Your task to perform on an android device: Go to location settings Image 0: 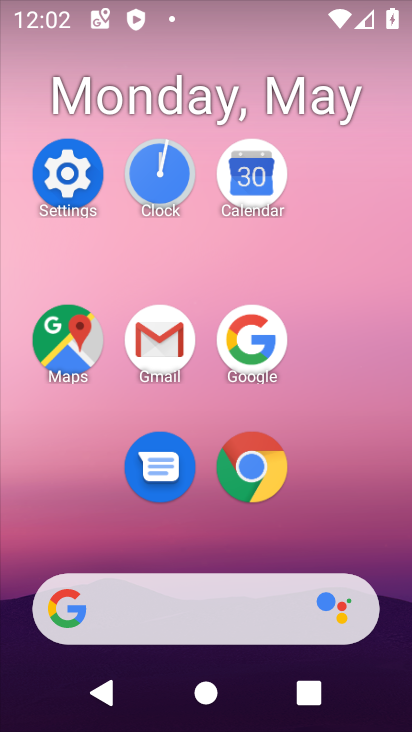
Step 0: click (57, 170)
Your task to perform on an android device: Go to location settings Image 1: 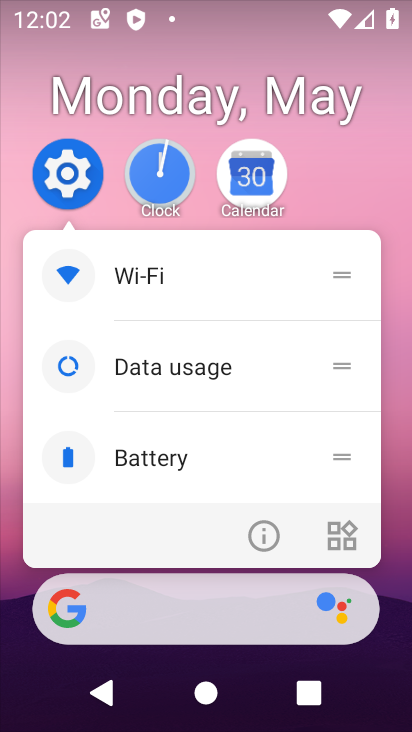
Step 1: click (57, 170)
Your task to perform on an android device: Go to location settings Image 2: 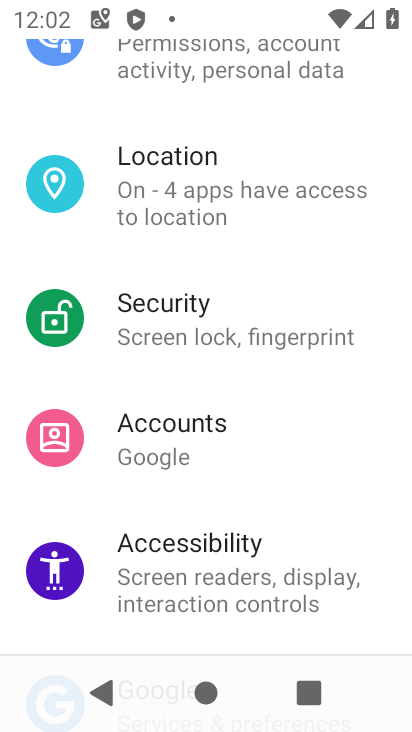
Step 2: click (226, 209)
Your task to perform on an android device: Go to location settings Image 3: 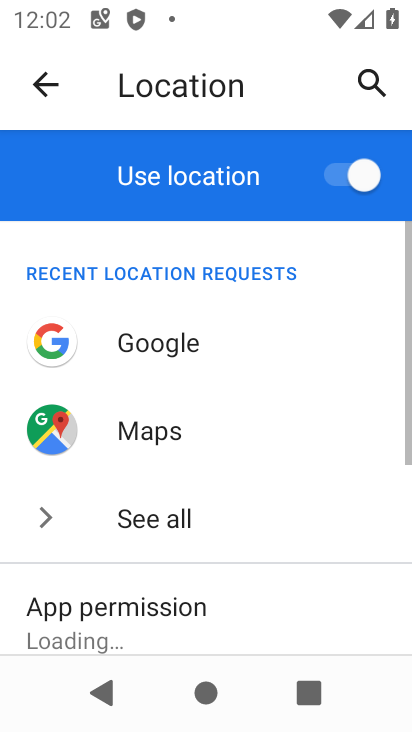
Step 3: task complete